Your task to perform on an android device: Go to notification settings Image 0: 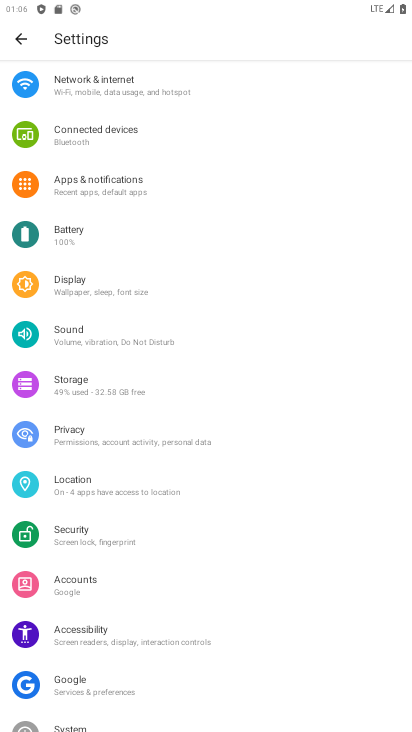
Step 0: click (115, 173)
Your task to perform on an android device: Go to notification settings Image 1: 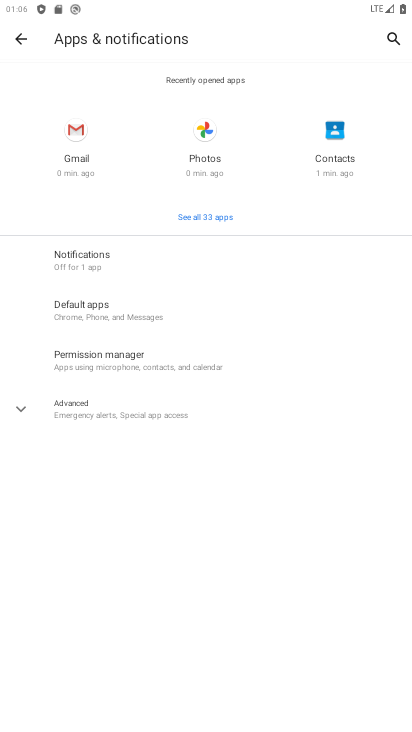
Step 1: task complete